Your task to perform on an android device: check data usage Image 0: 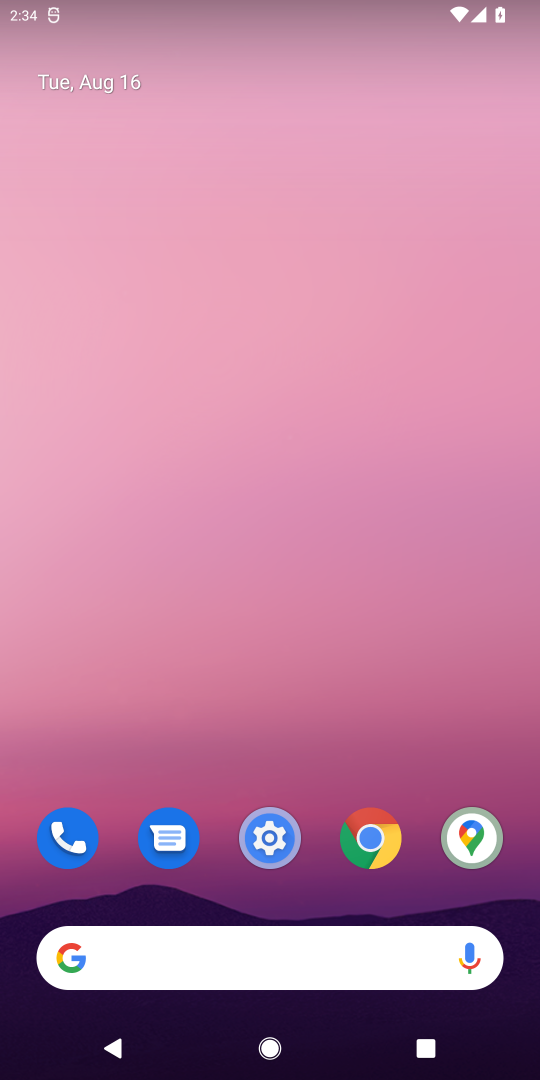
Step 0: click (267, 842)
Your task to perform on an android device: check data usage Image 1: 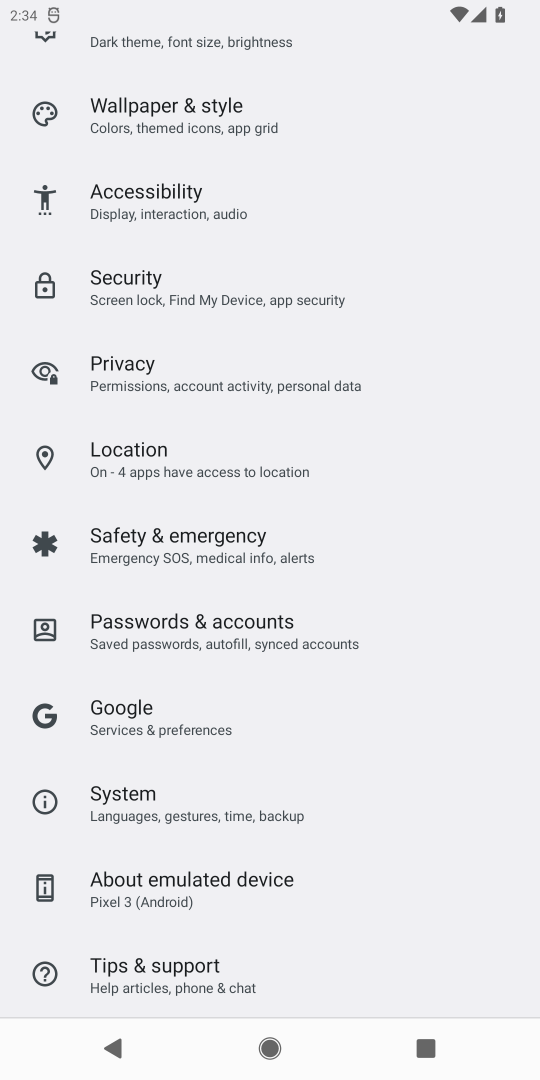
Step 1: drag from (226, 87) to (248, 723)
Your task to perform on an android device: check data usage Image 2: 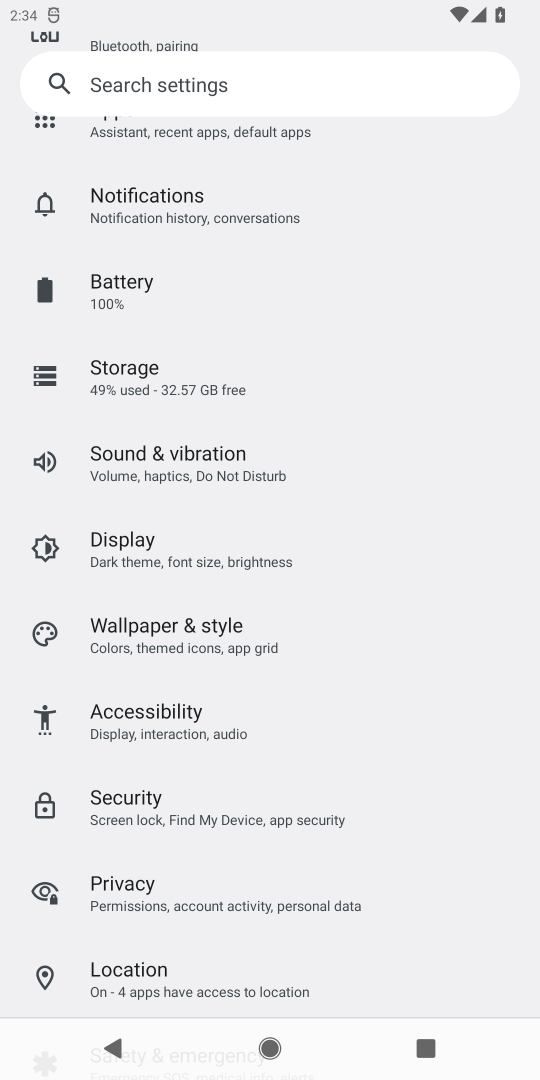
Step 2: drag from (177, 159) to (168, 544)
Your task to perform on an android device: check data usage Image 3: 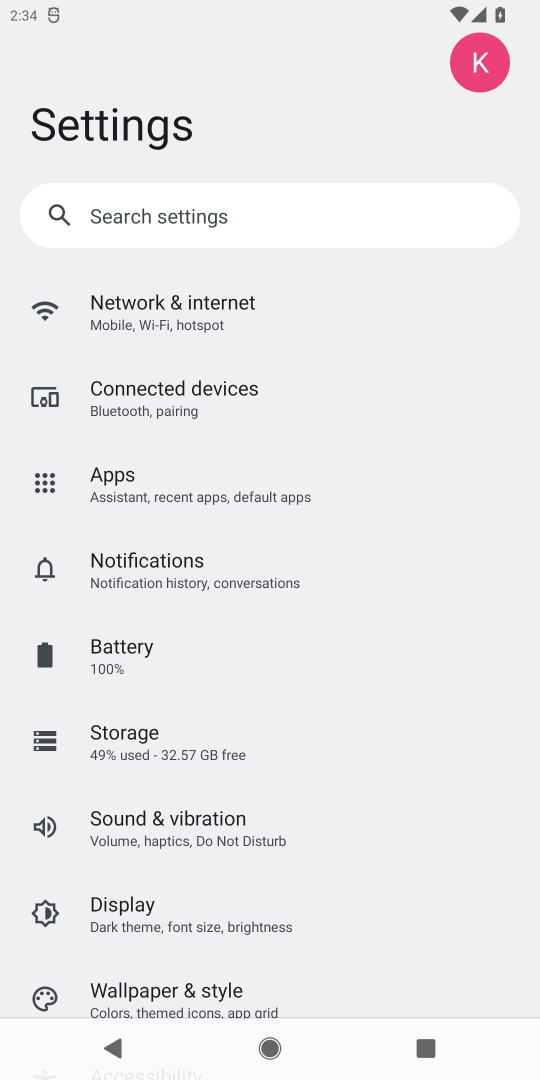
Step 3: click (148, 313)
Your task to perform on an android device: check data usage Image 4: 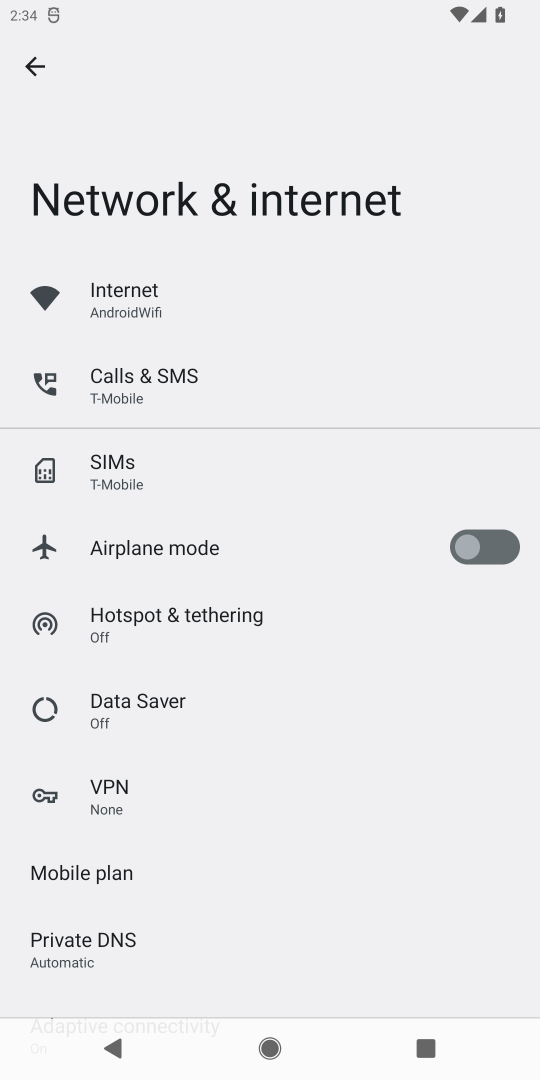
Step 4: drag from (163, 839) to (185, 683)
Your task to perform on an android device: check data usage Image 5: 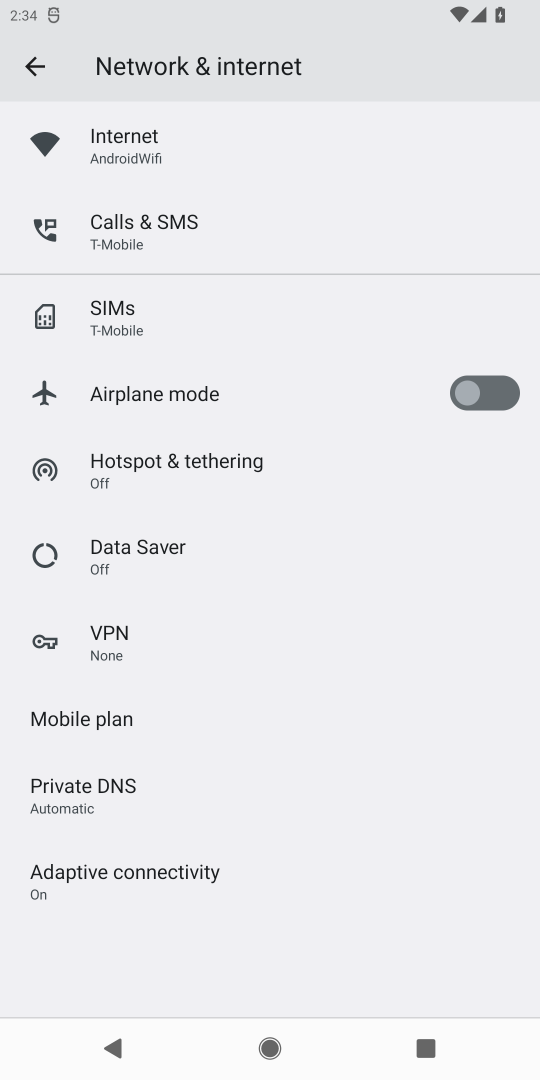
Step 5: click (145, 160)
Your task to perform on an android device: check data usage Image 6: 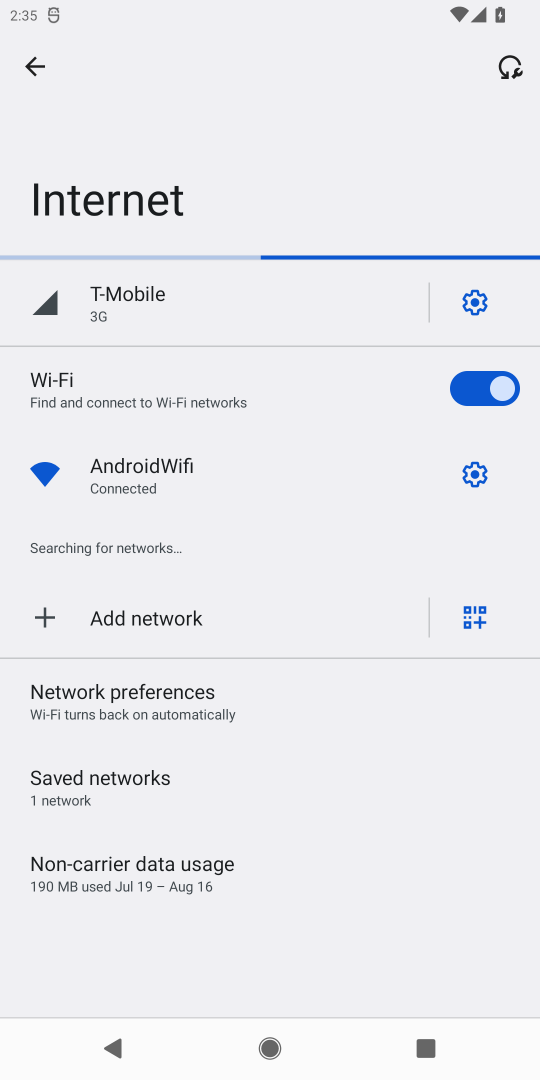
Step 6: click (186, 314)
Your task to perform on an android device: check data usage Image 7: 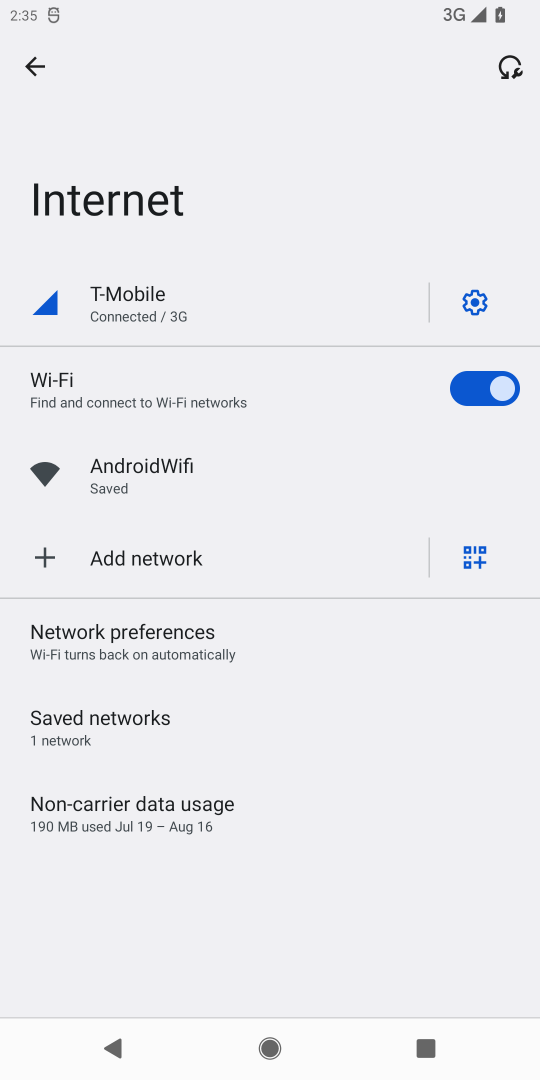
Step 7: click (54, 822)
Your task to perform on an android device: check data usage Image 8: 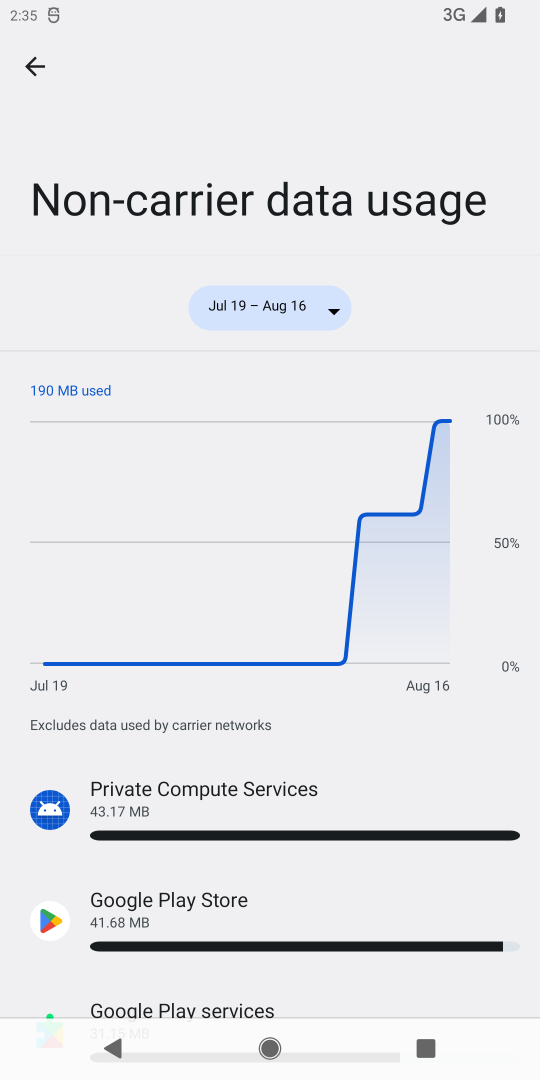
Step 8: task complete